Your task to perform on an android device: Go to Yahoo.com Image 0: 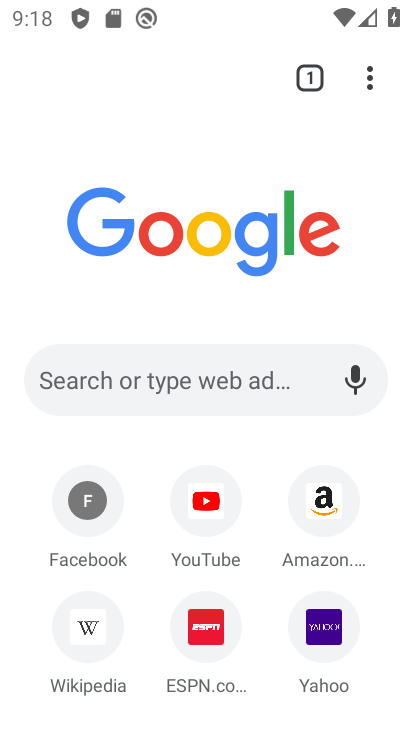
Step 0: click (339, 617)
Your task to perform on an android device: Go to Yahoo.com Image 1: 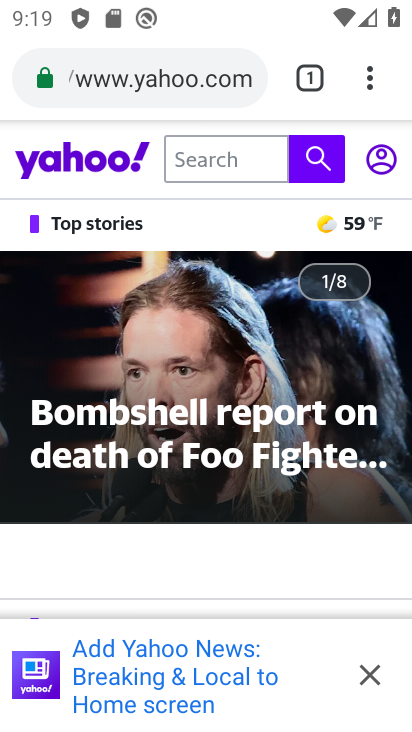
Step 1: task complete